Your task to perform on an android device: see creations saved in the google photos Image 0: 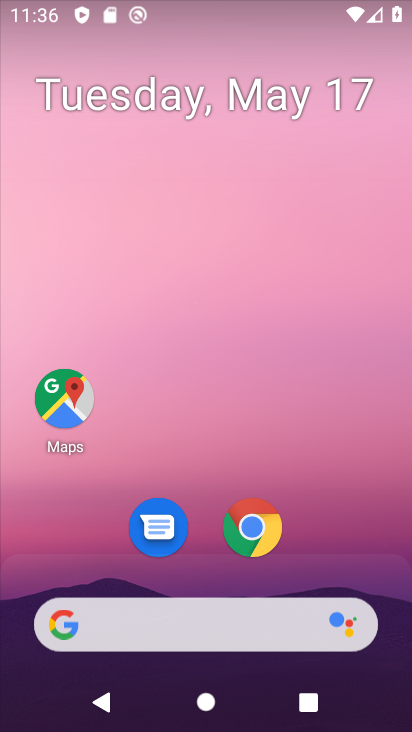
Step 0: click (312, 253)
Your task to perform on an android device: see creations saved in the google photos Image 1: 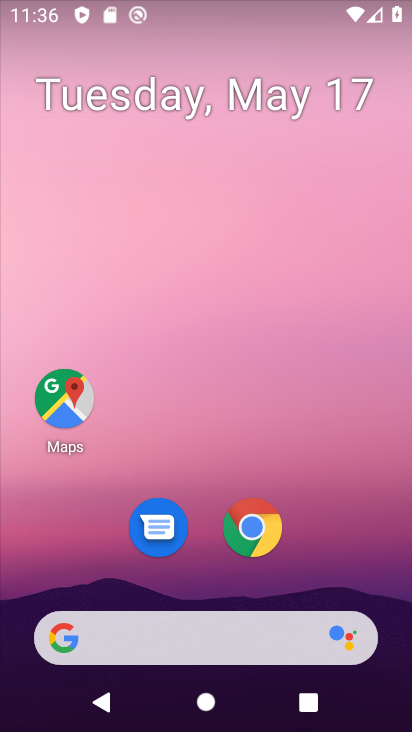
Step 1: drag from (327, 436) to (324, 199)
Your task to perform on an android device: see creations saved in the google photos Image 2: 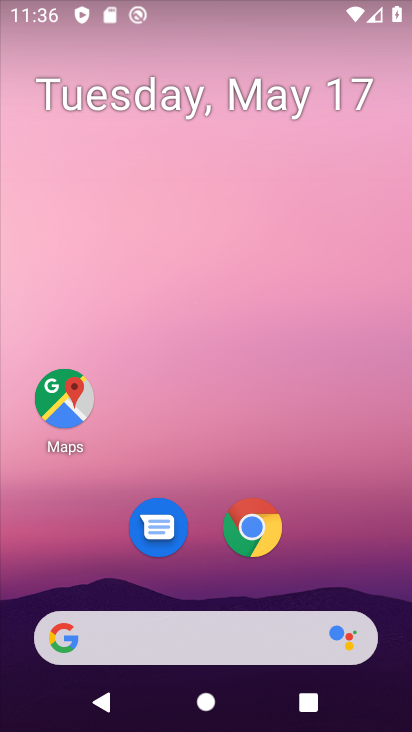
Step 2: drag from (303, 329) to (303, 144)
Your task to perform on an android device: see creations saved in the google photos Image 3: 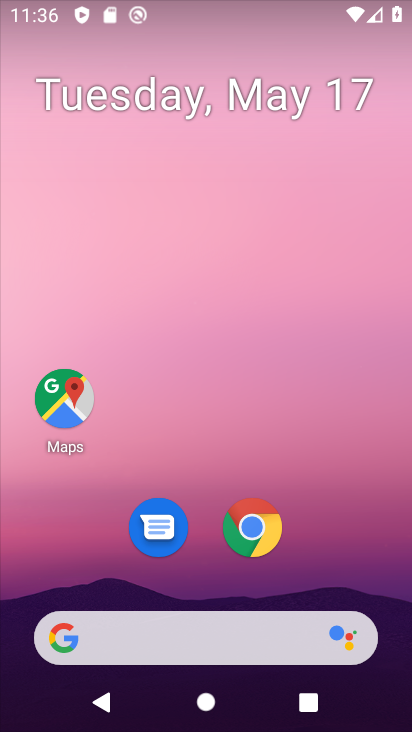
Step 3: drag from (343, 406) to (333, 113)
Your task to perform on an android device: see creations saved in the google photos Image 4: 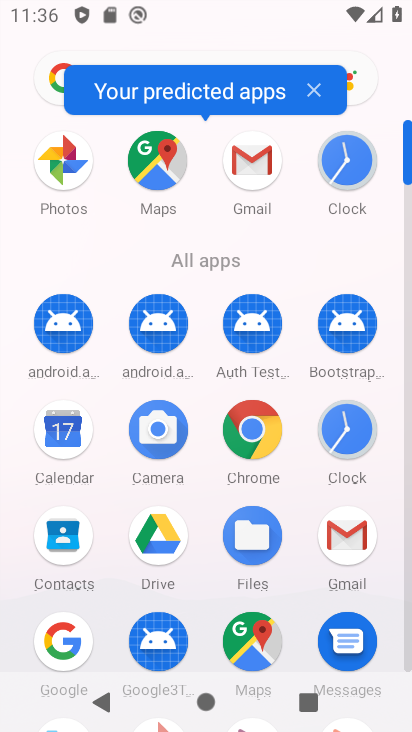
Step 4: click (52, 176)
Your task to perform on an android device: see creations saved in the google photos Image 5: 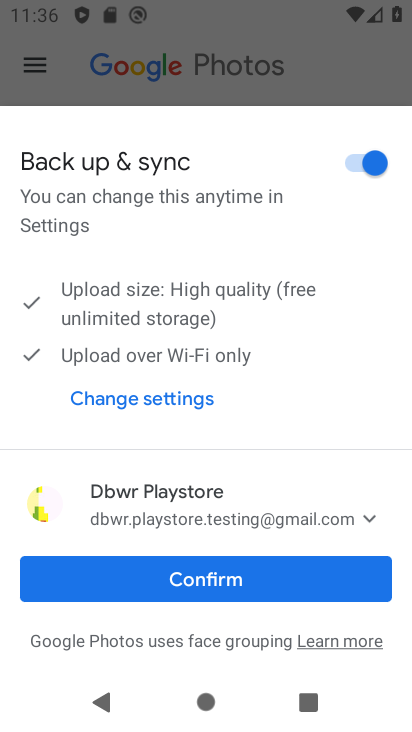
Step 5: click (198, 589)
Your task to perform on an android device: see creations saved in the google photos Image 6: 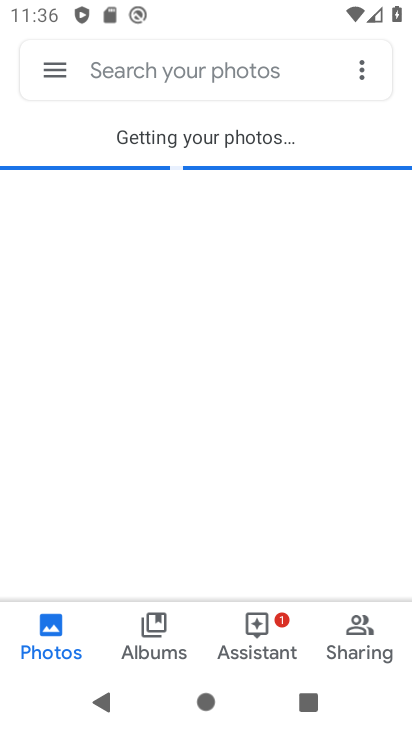
Step 6: click (165, 67)
Your task to perform on an android device: see creations saved in the google photos Image 7: 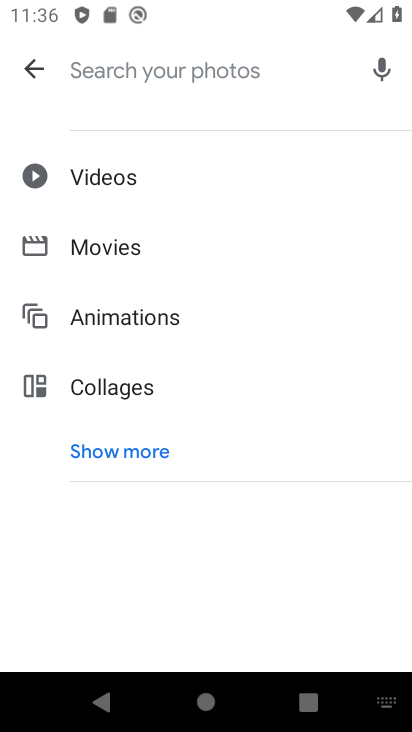
Step 7: click (122, 448)
Your task to perform on an android device: see creations saved in the google photos Image 8: 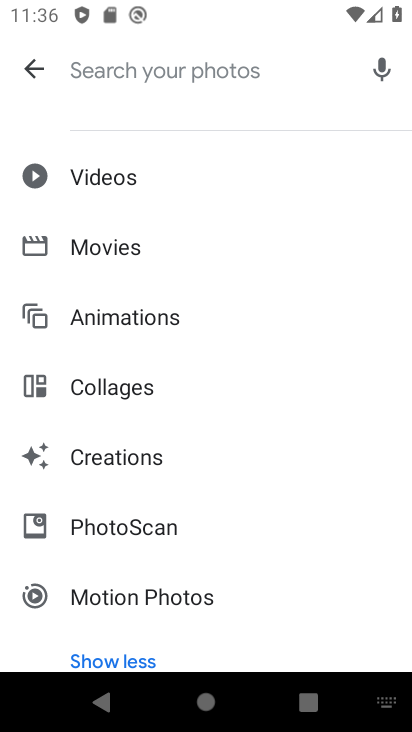
Step 8: drag from (162, 513) to (145, 331)
Your task to perform on an android device: see creations saved in the google photos Image 9: 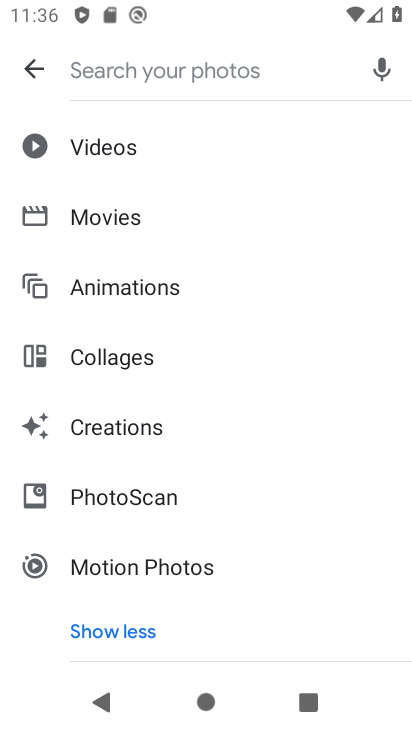
Step 9: click (147, 426)
Your task to perform on an android device: see creations saved in the google photos Image 10: 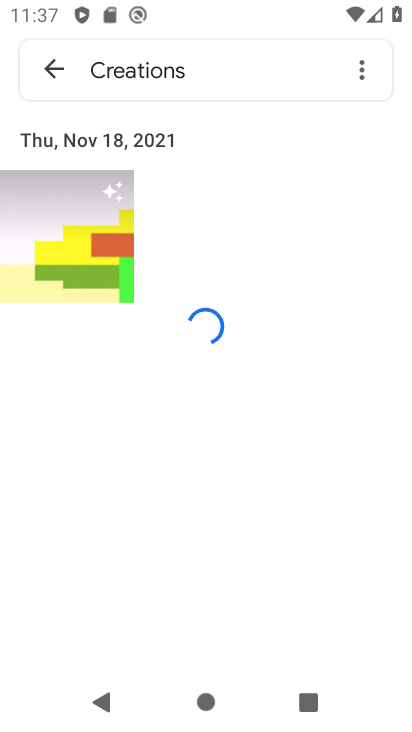
Step 10: task complete